Your task to perform on an android device: Open the stopwatch Image 0: 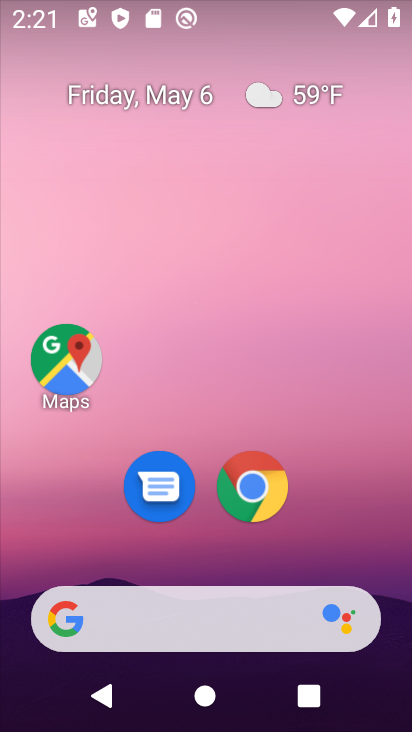
Step 0: drag from (333, 518) to (303, 97)
Your task to perform on an android device: Open the stopwatch Image 1: 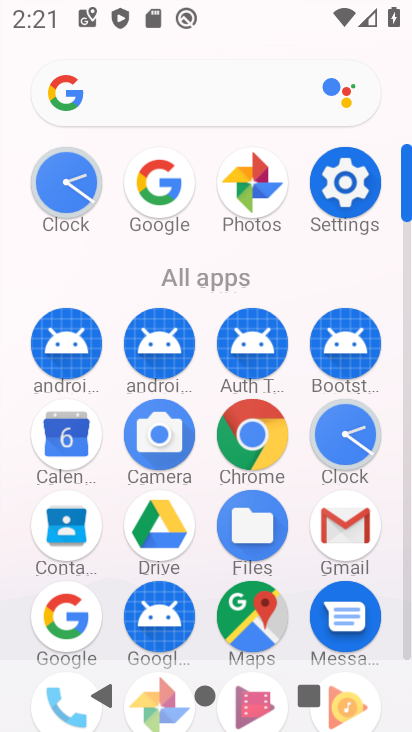
Step 1: click (334, 438)
Your task to perform on an android device: Open the stopwatch Image 2: 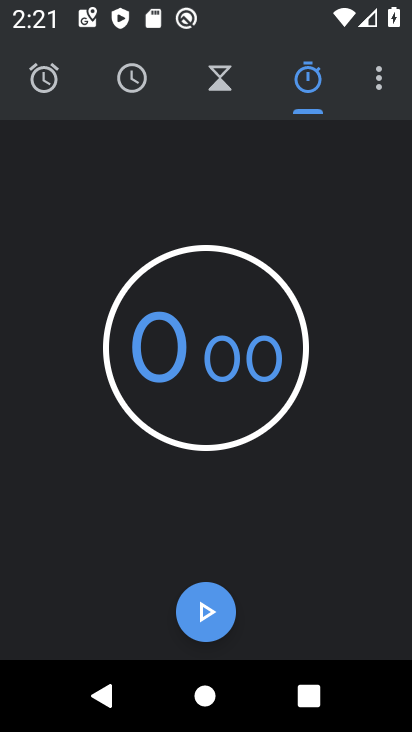
Step 2: click (212, 627)
Your task to perform on an android device: Open the stopwatch Image 3: 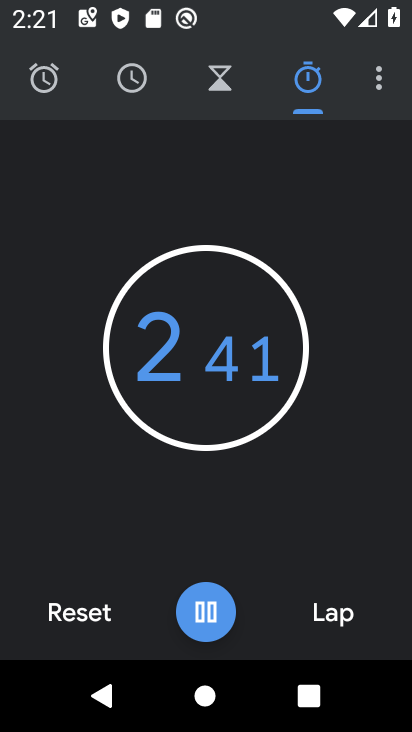
Step 3: task complete